Your task to perform on an android device: Open Youtube and go to "Your channel" Image 0: 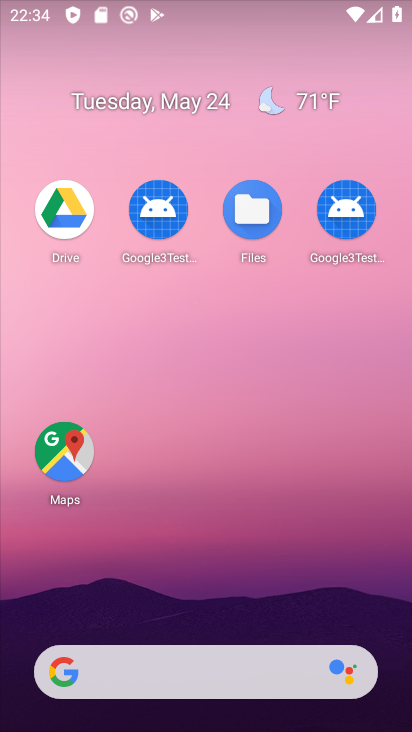
Step 0: drag from (180, 625) to (209, 58)
Your task to perform on an android device: Open Youtube and go to "Your channel" Image 1: 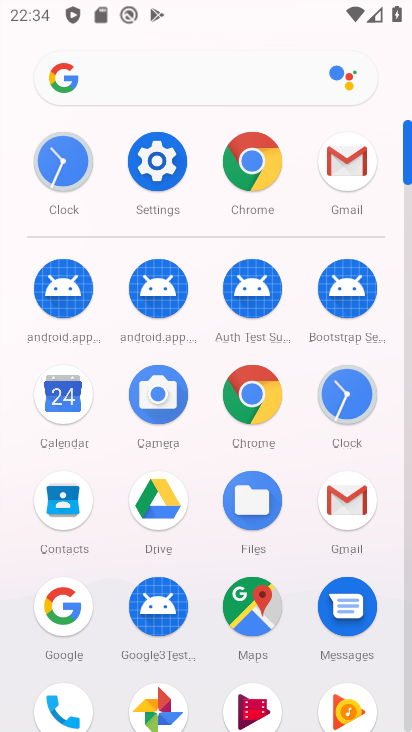
Step 1: drag from (203, 661) to (157, 260)
Your task to perform on an android device: Open Youtube and go to "Your channel" Image 2: 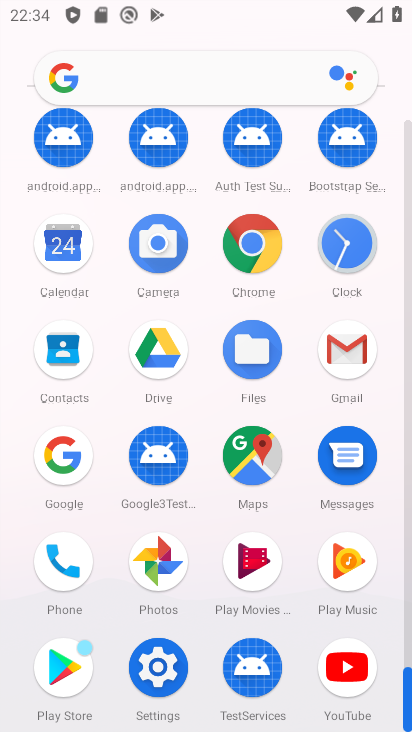
Step 2: click (355, 655)
Your task to perform on an android device: Open Youtube and go to "Your channel" Image 3: 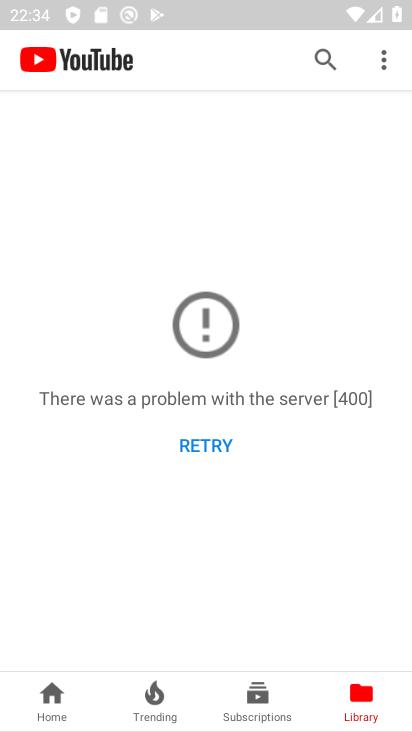
Step 3: click (383, 65)
Your task to perform on an android device: Open Youtube and go to "Your channel" Image 4: 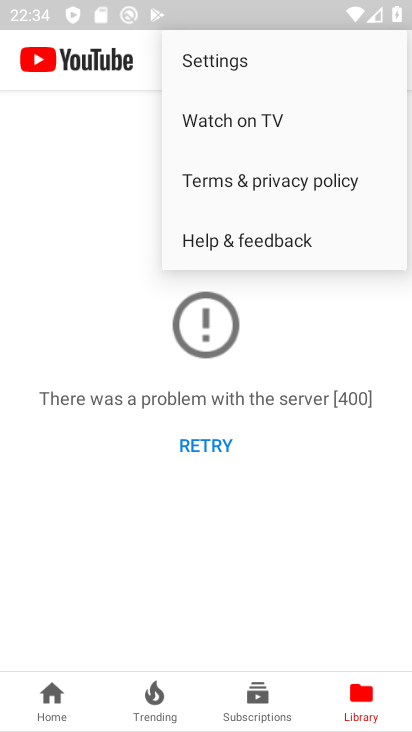
Step 4: click (263, 59)
Your task to perform on an android device: Open Youtube and go to "Your channel" Image 5: 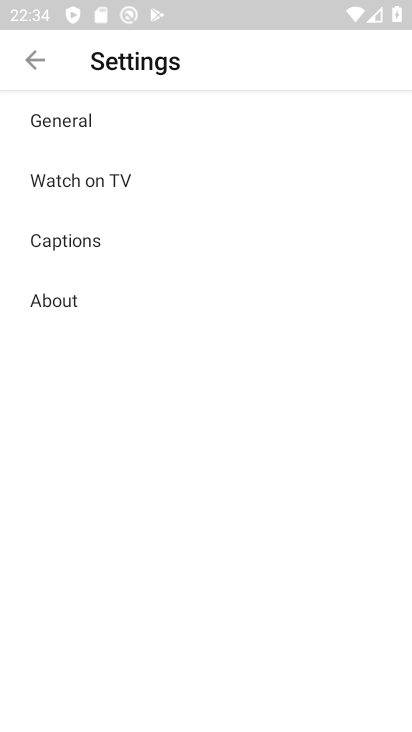
Step 5: task complete